Your task to perform on an android device: Find coffee shops on Maps Image 0: 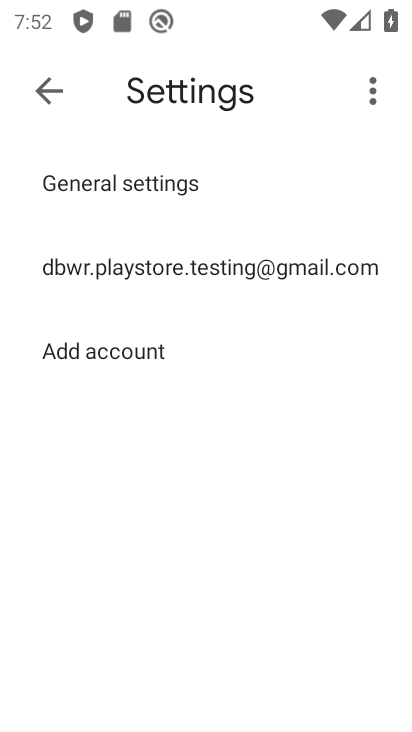
Step 0: press home button
Your task to perform on an android device: Find coffee shops on Maps Image 1: 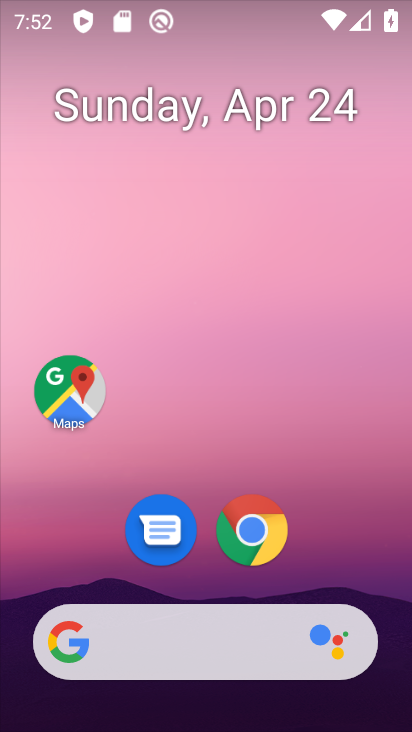
Step 1: click (70, 401)
Your task to perform on an android device: Find coffee shops on Maps Image 2: 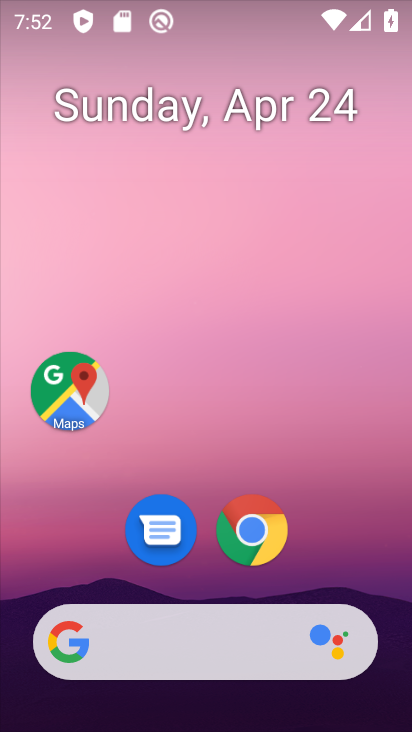
Step 2: click (70, 401)
Your task to perform on an android device: Find coffee shops on Maps Image 3: 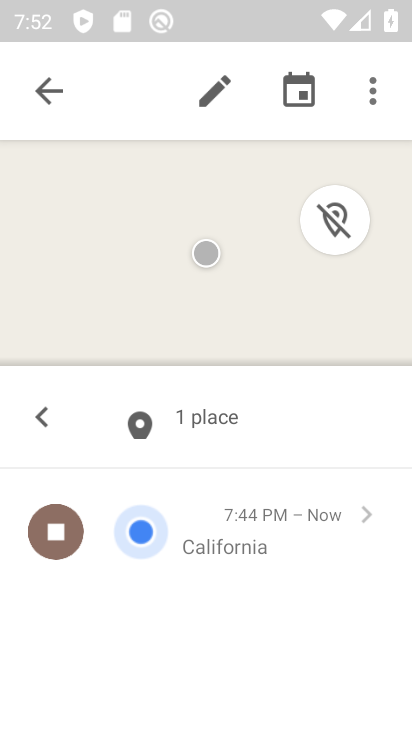
Step 3: click (50, 96)
Your task to perform on an android device: Find coffee shops on Maps Image 4: 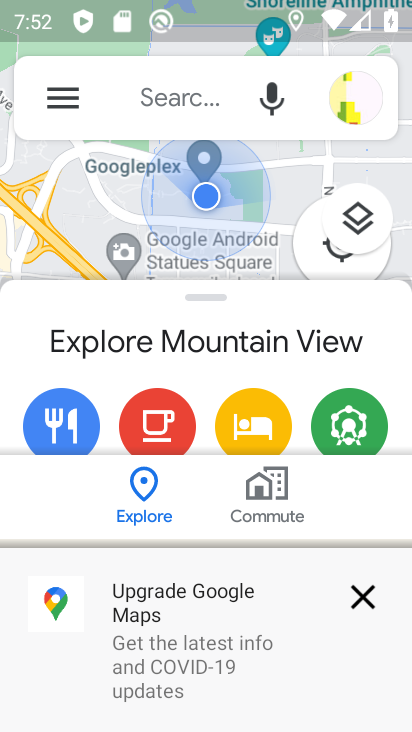
Step 4: click (171, 106)
Your task to perform on an android device: Find coffee shops on Maps Image 5: 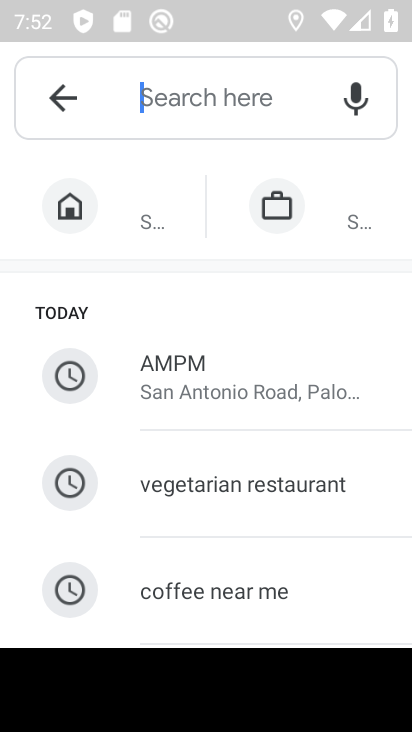
Step 5: click (235, 599)
Your task to perform on an android device: Find coffee shops on Maps Image 6: 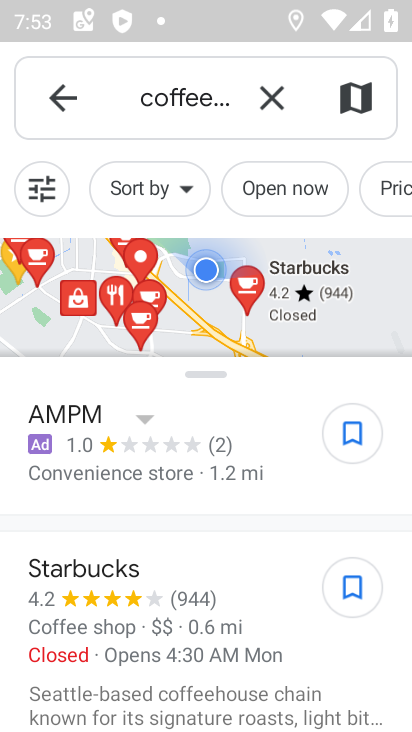
Step 6: task complete